Your task to perform on an android device: Open Google Maps Image 0: 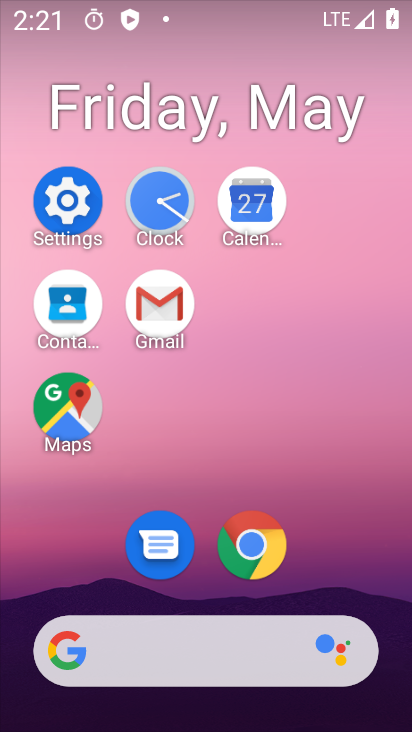
Step 0: click (51, 398)
Your task to perform on an android device: Open Google Maps Image 1: 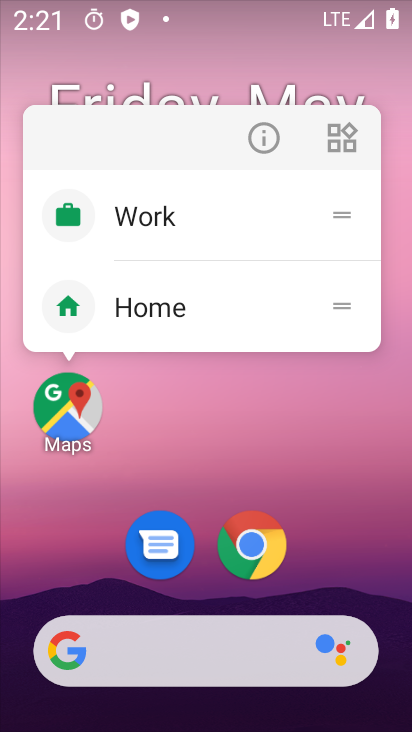
Step 1: click (50, 413)
Your task to perform on an android device: Open Google Maps Image 2: 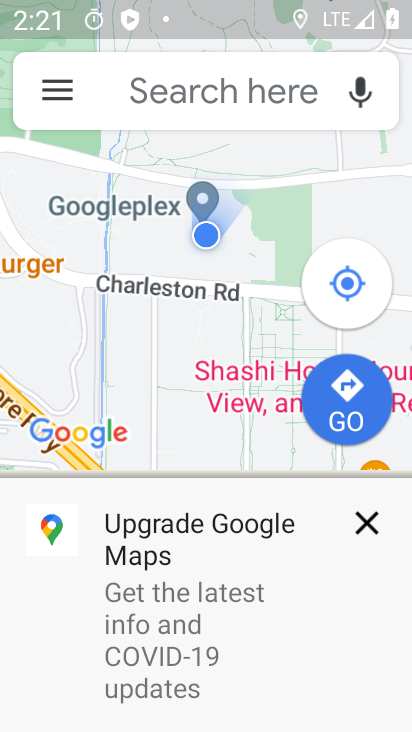
Step 2: task complete